Your task to perform on an android device: Go to ESPN.com Image 0: 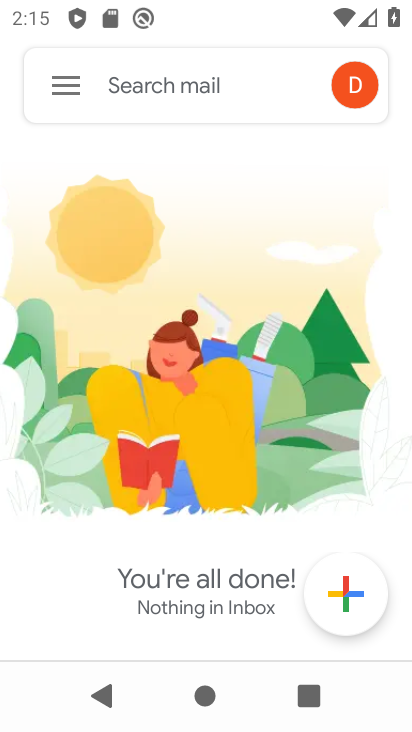
Step 0: press back button
Your task to perform on an android device: Go to ESPN.com Image 1: 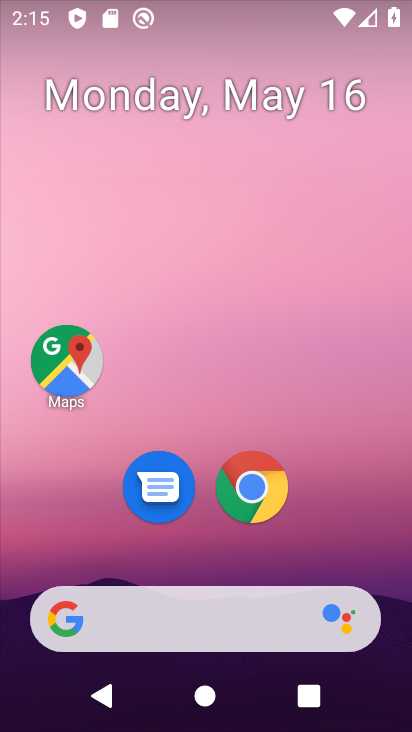
Step 1: click (256, 488)
Your task to perform on an android device: Go to ESPN.com Image 2: 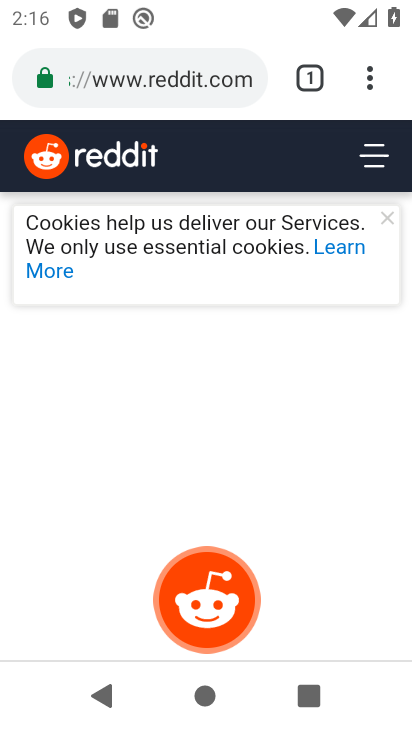
Step 2: click (200, 81)
Your task to perform on an android device: Go to ESPN.com Image 3: 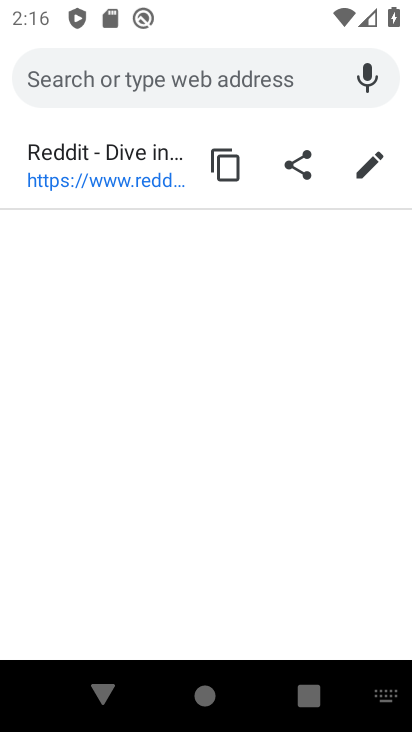
Step 3: type "ESPN.com"
Your task to perform on an android device: Go to ESPN.com Image 4: 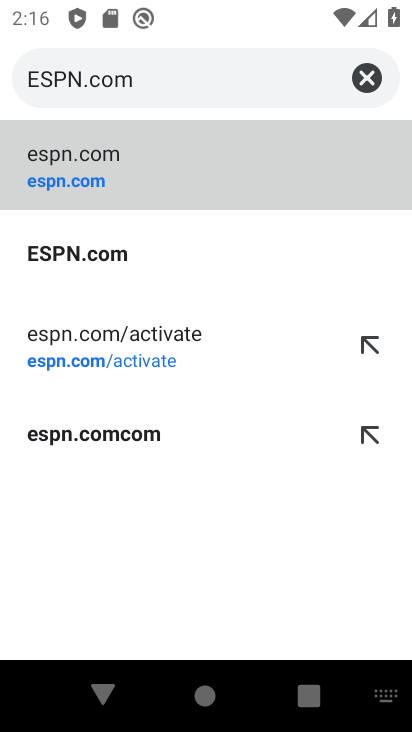
Step 4: click (89, 252)
Your task to perform on an android device: Go to ESPN.com Image 5: 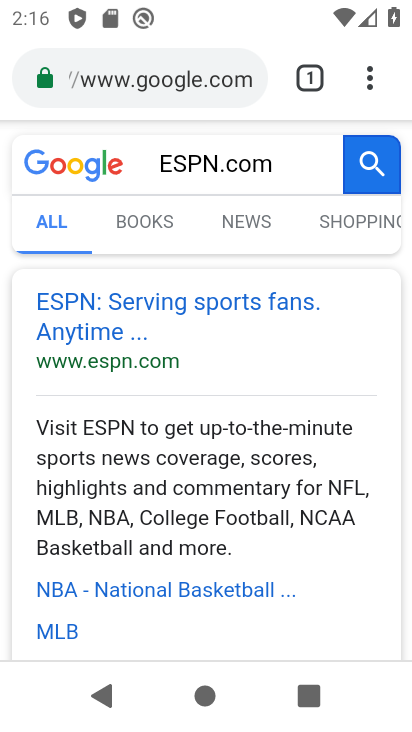
Step 5: click (111, 306)
Your task to perform on an android device: Go to ESPN.com Image 6: 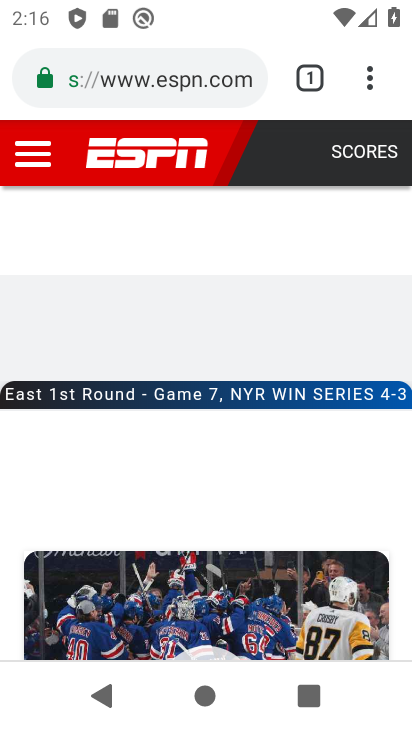
Step 6: task complete